Your task to perform on an android device: Open the phone app and click the voicemail tab. Image 0: 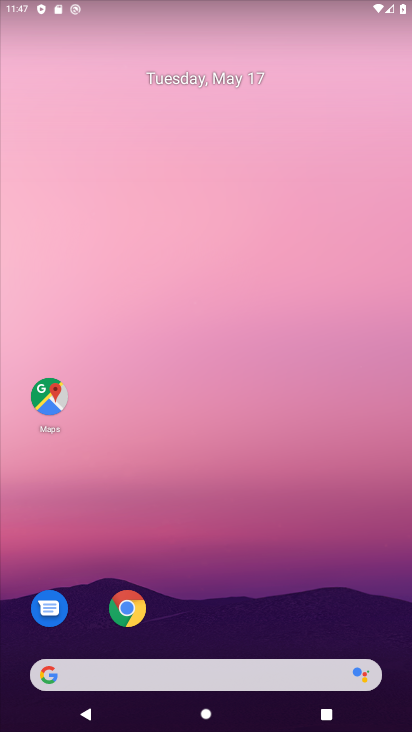
Step 0: drag from (237, 721) to (328, 24)
Your task to perform on an android device: Open the phone app and click the voicemail tab. Image 1: 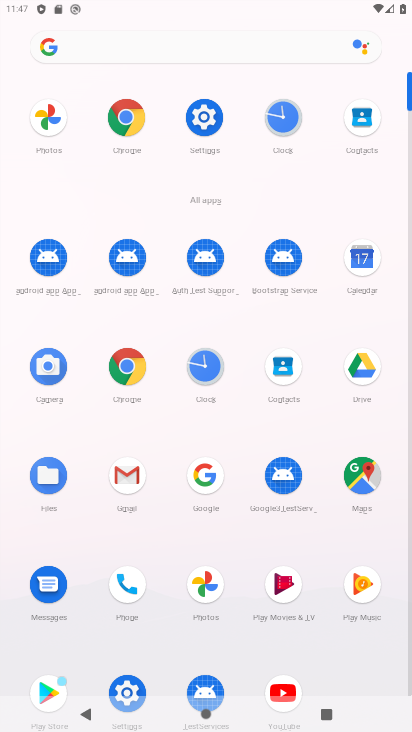
Step 1: click (131, 590)
Your task to perform on an android device: Open the phone app and click the voicemail tab. Image 2: 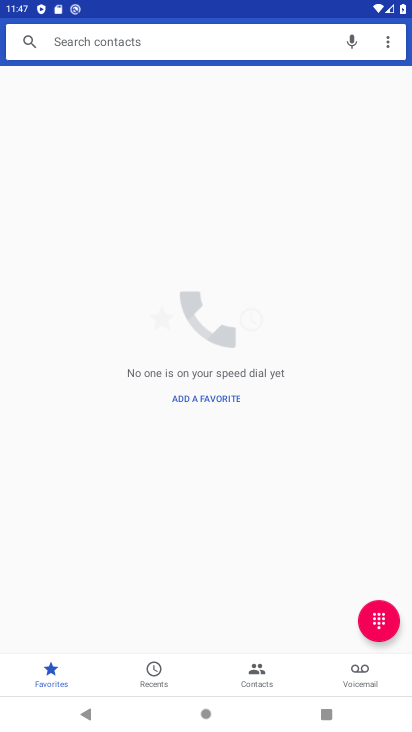
Step 2: click (358, 674)
Your task to perform on an android device: Open the phone app and click the voicemail tab. Image 3: 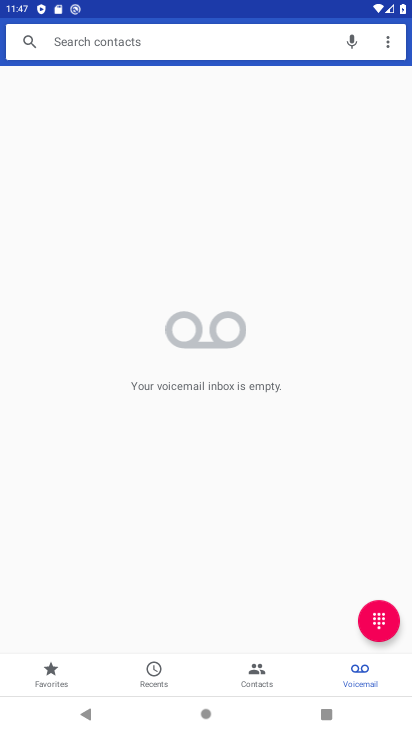
Step 3: task complete